Your task to perform on an android device: open a bookmark in the chrome app Image 0: 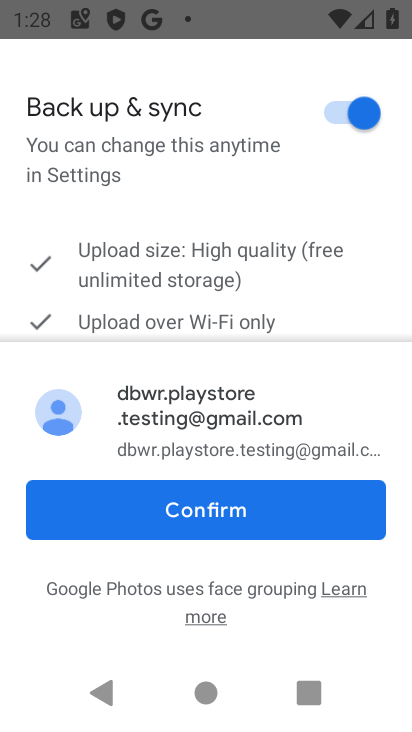
Step 0: press home button
Your task to perform on an android device: open a bookmark in the chrome app Image 1: 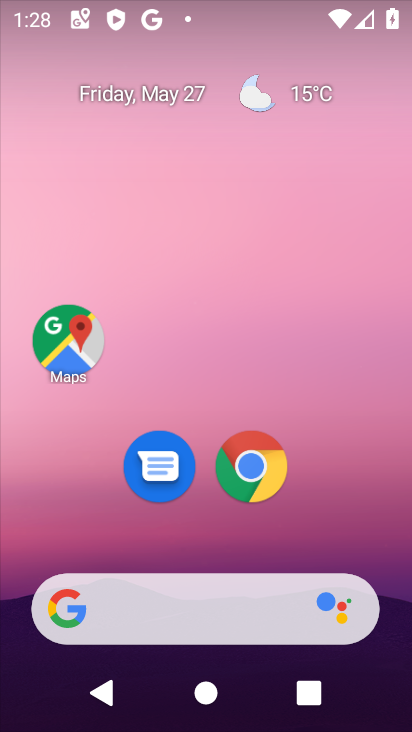
Step 1: click (249, 468)
Your task to perform on an android device: open a bookmark in the chrome app Image 2: 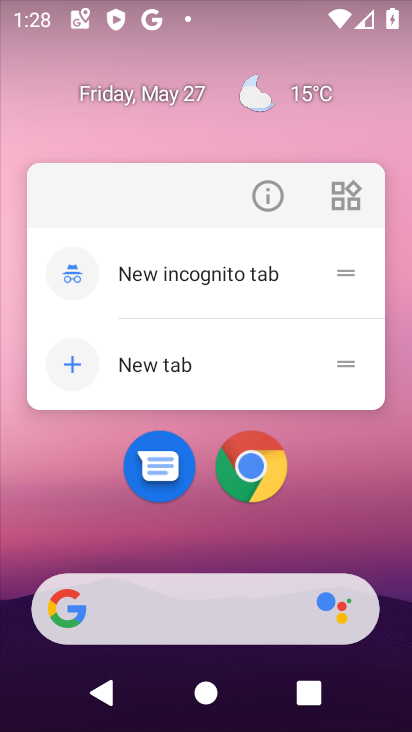
Step 2: click (263, 479)
Your task to perform on an android device: open a bookmark in the chrome app Image 3: 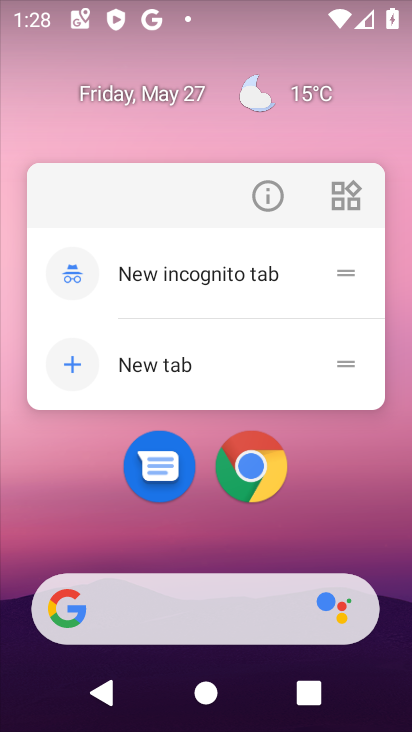
Step 3: click (263, 479)
Your task to perform on an android device: open a bookmark in the chrome app Image 4: 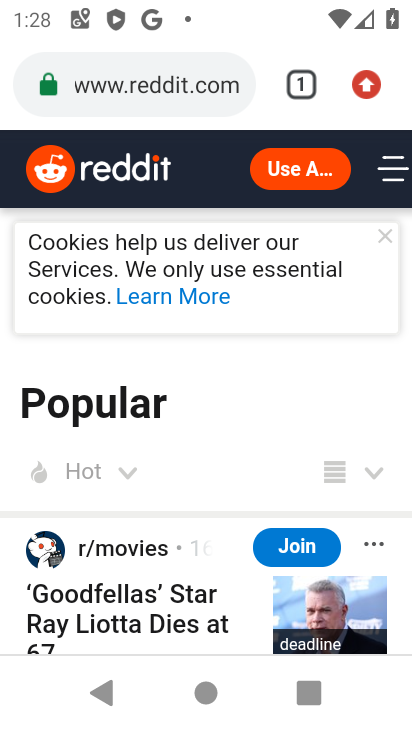
Step 4: task complete